Your task to perform on an android device: turn on javascript in the chrome app Image 0: 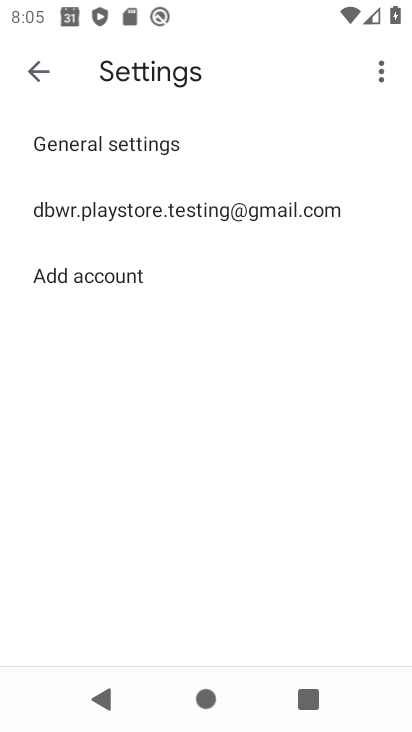
Step 0: press home button
Your task to perform on an android device: turn on javascript in the chrome app Image 1: 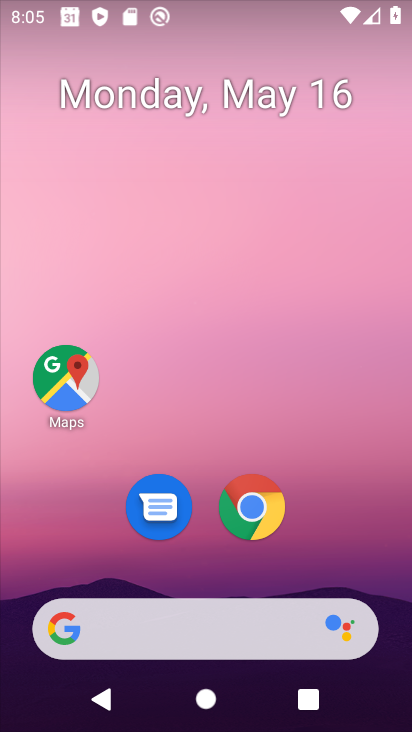
Step 1: click (260, 499)
Your task to perform on an android device: turn on javascript in the chrome app Image 2: 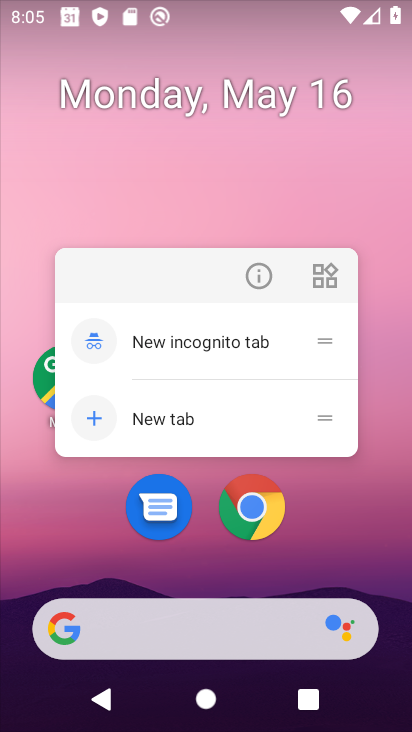
Step 2: click (252, 486)
Your task to perform on an android device: turn on javascript in the chrome app Image 3: 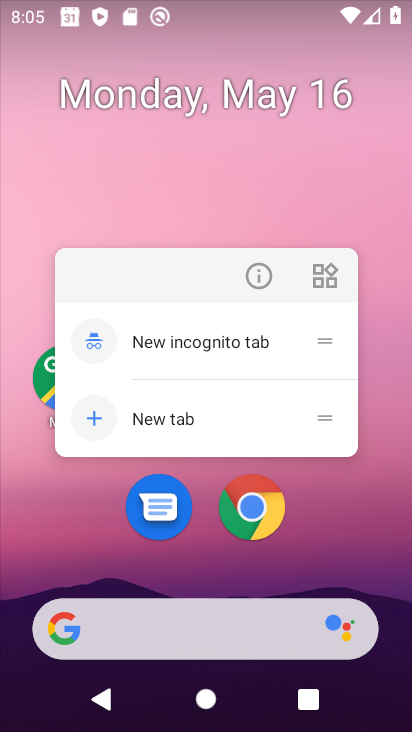
Step 3: click (248, 514)
Your task to perform on an android device: turn on javascript in the chrome app Image 4: 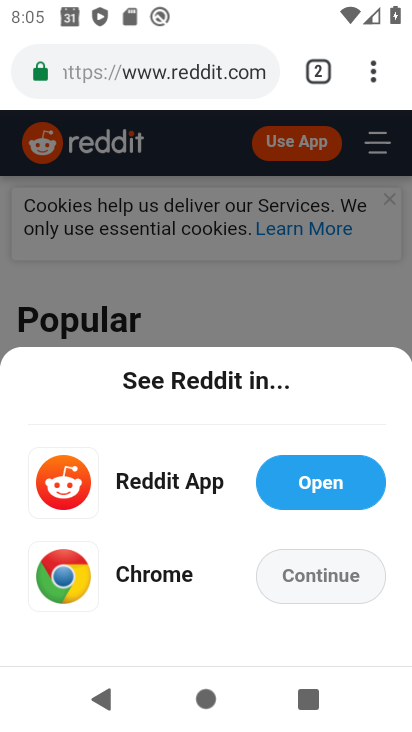
Step 4: drag from (375, 66) to (136, 511)
Your task to perform on an android device: turn on javascript in the chrome app Image 5: 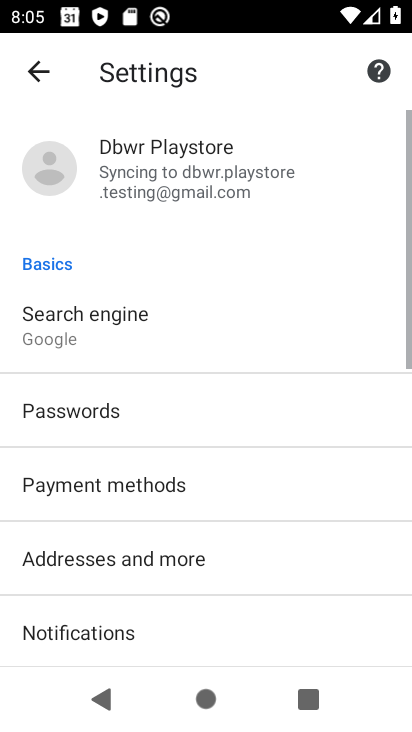
Step 5: drag from (249, 591) to (404, 9)
Your task to perform on an android device: turn on javascript in the chrome app Image 6: 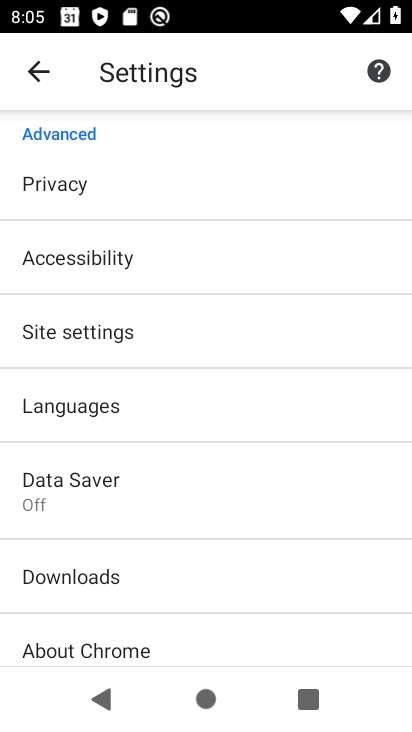
Step 6: click (89, 344)
Your task to perform on an android device: turn on javascript in the chrome app Image 7: 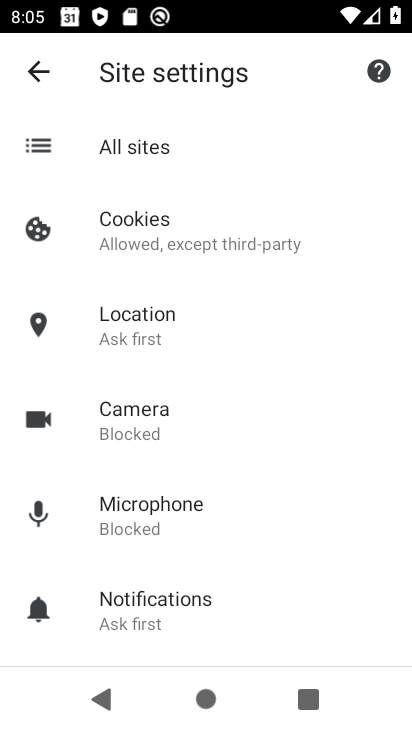
Step 7: drag from (257, 589) to (241, 171)
Your task to perform on an android device: turn on javascript in the chrome app Image 8: 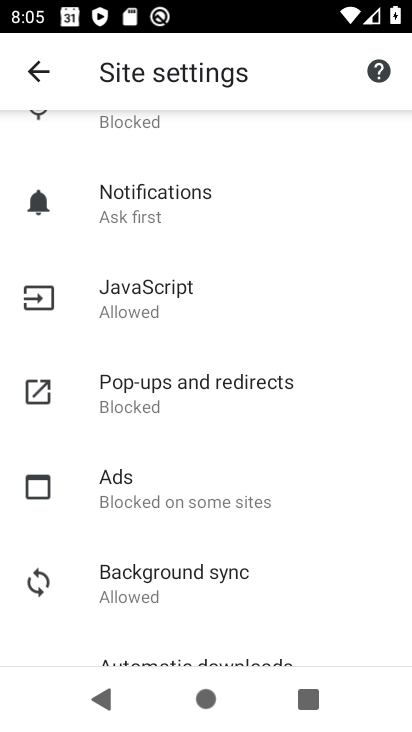
Step 8: click (116, 290)
Your task to perform on an android device: turn on javascript in the chrome app Image 9: 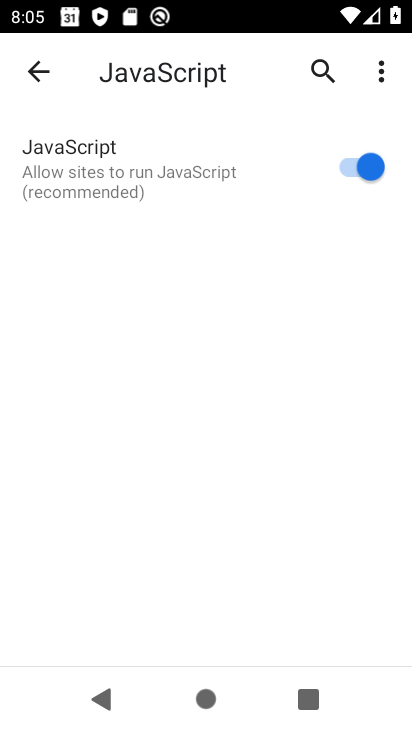
Step 9: task complete